Your task to perform on an android device: turn off data saver in the chrome app Image 0: 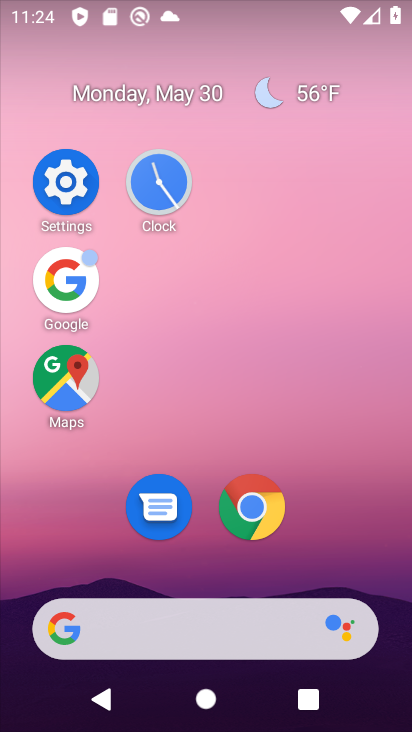
Step 0: click (248, 500)
Your task to perform on an android device: turn off data saver in the chrome app Image 1: 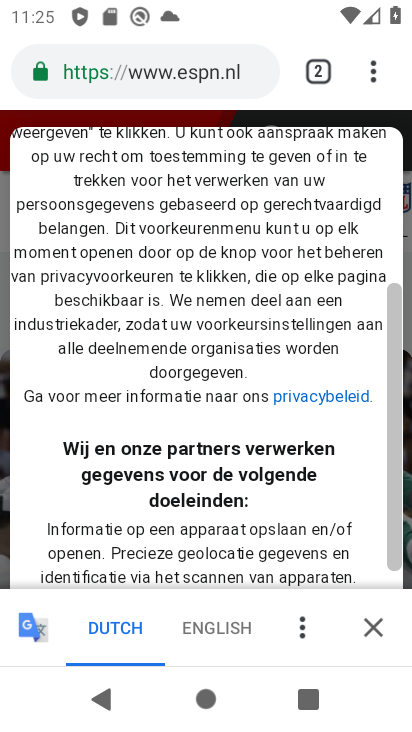
Step 1: click (367, 72)
Your task to perform on an android device: turn off data saver in the chrome app Image 2: 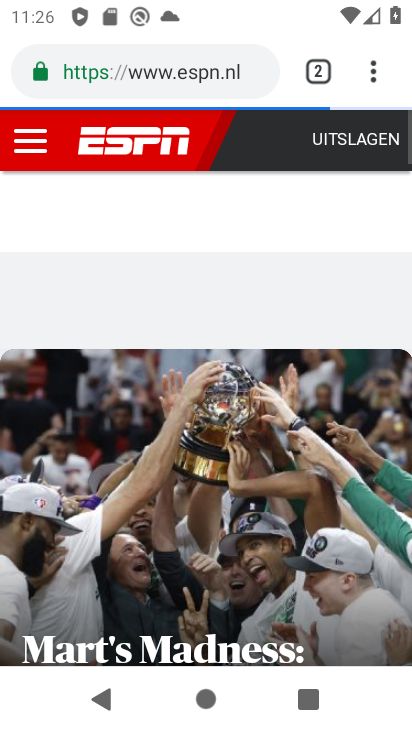
Step 2: click (373, 59)
Your task to perform on an android device: turn off data saver in the chrome app Image 3: 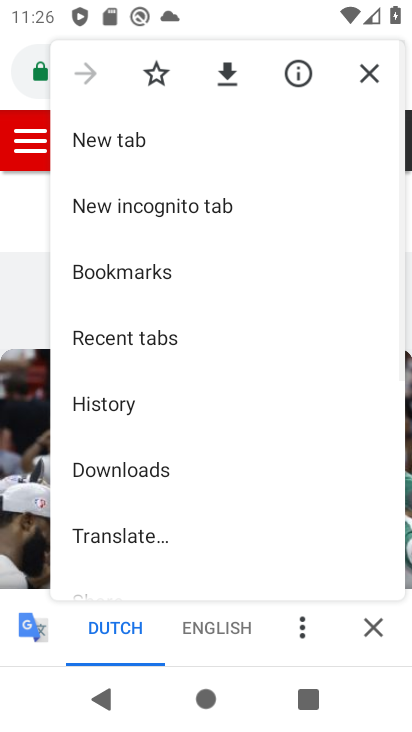
Step 3: drag from (144, 487) to (175, 73)
Your task to perform on an android device: turn off data saver in the chrome app Image 4: 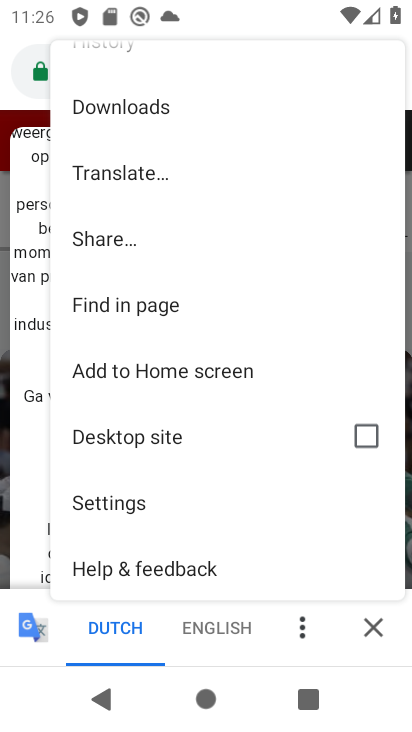
Step 4: click (142, 511)
Your task to perform on an android device: turn off data saver in the chrome app Image 5: 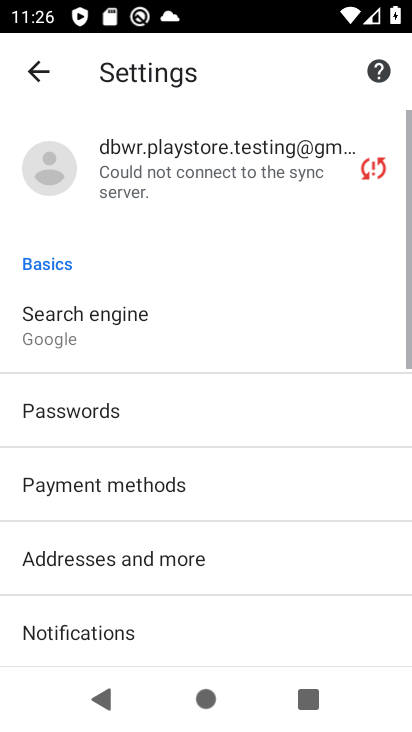
Step 5: task complete